Your task to perform on an android device: What is the news today? Image 0: 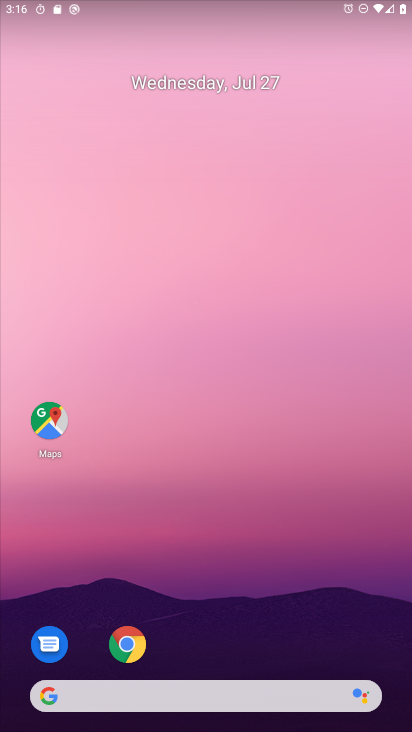
Step 0: drag from (190, 651) to (198, 267)
Your task to perform on an android device: What is the news today? Image 1: 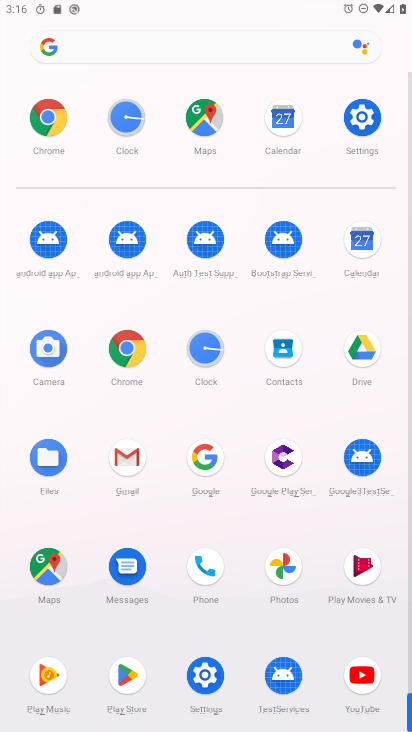
Step 1: drag from (239, 594) to (262, 250)
Your task to perform on an android device: What is the news today? Image 2: 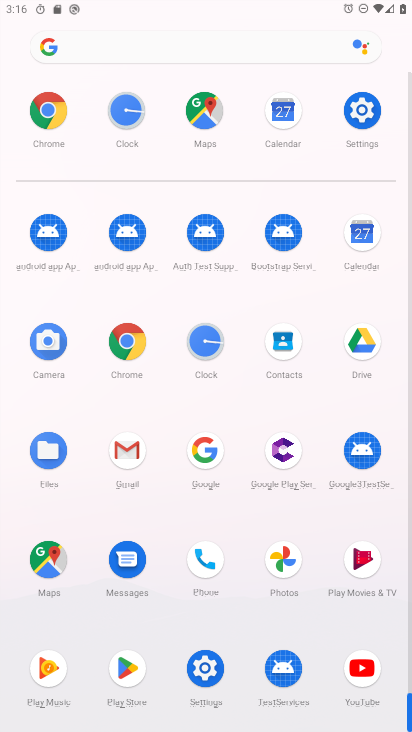
Step 2: click (362, 224)
Your task to perform on an android device: What is the news today? Image 3: 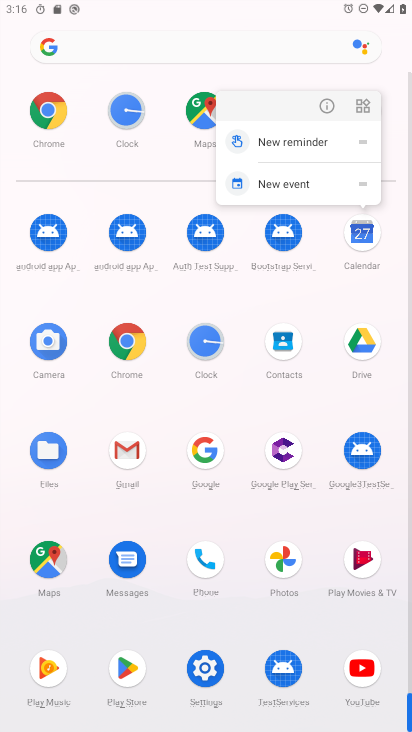
Step 3: click (156, 46)
Your task to perform on an android device: What is the news today? Image 4: 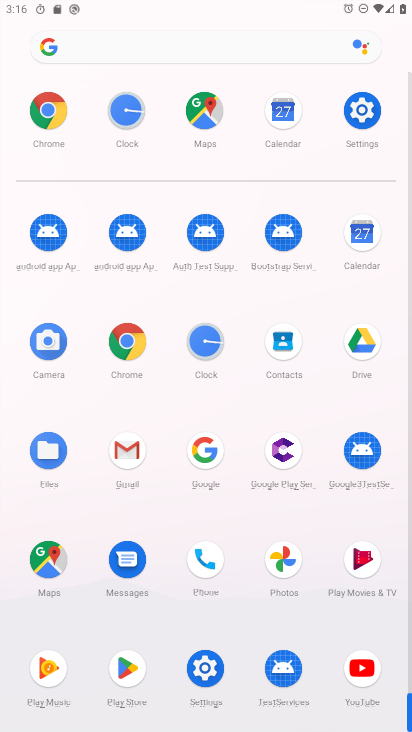
Step 4: click (114, 51)
Your task to perform on an android device: What is the news today? Image 5: 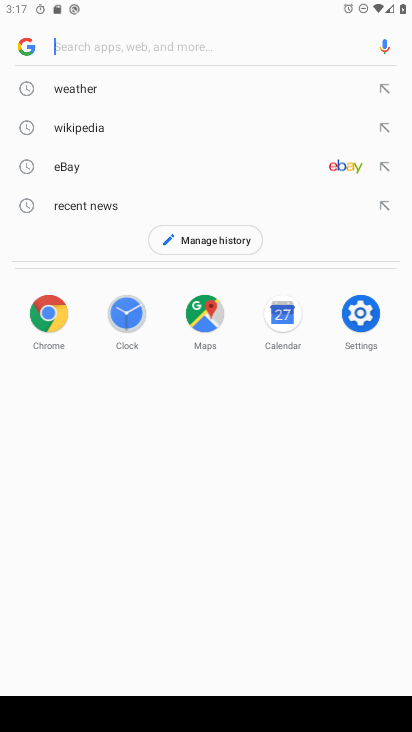
Step 5: type "news today?"
Your task to perform on an android device: What is the news today? Image 6: 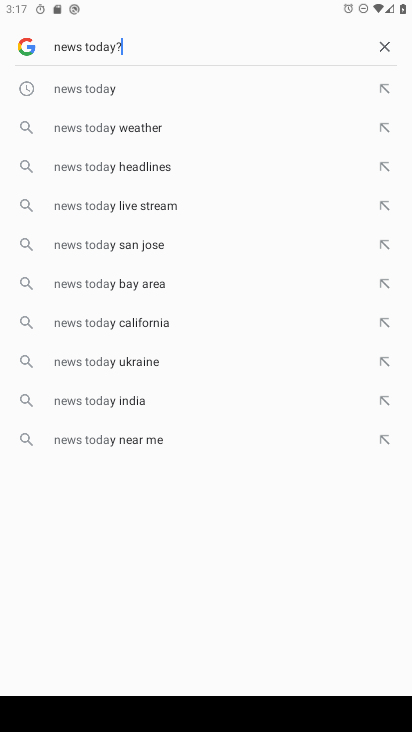
Step 6: type ""
Your task to perform on an android device: What is the news today? Image 7: 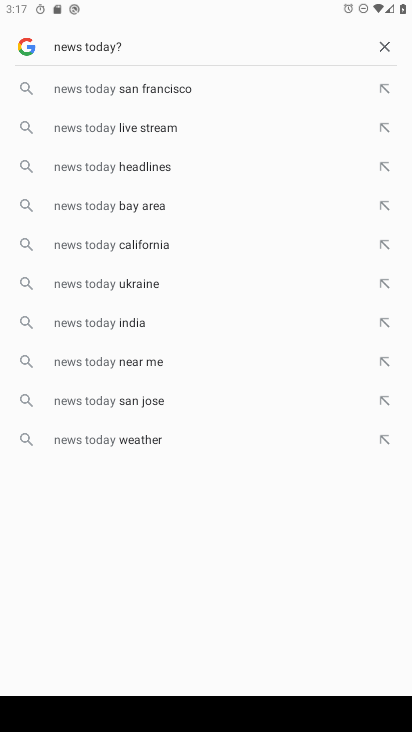
Step 7: click (112, 326)
Your task to perform on an android device: What is the news today? Image 8: 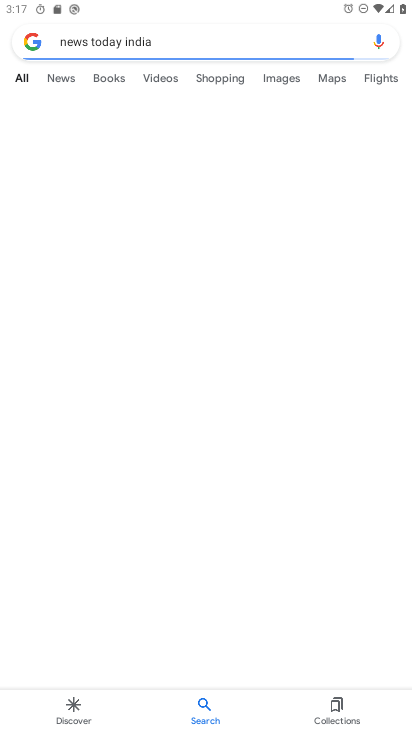
Step 8: task complete